Your task to perform on an android device: Open notification settings Image 0: 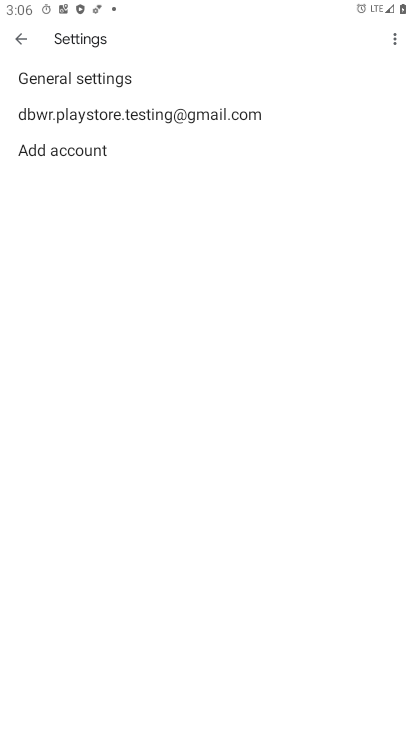
Step 0: press home button
Your task to perform on an android device: Open notification settings Image 1: 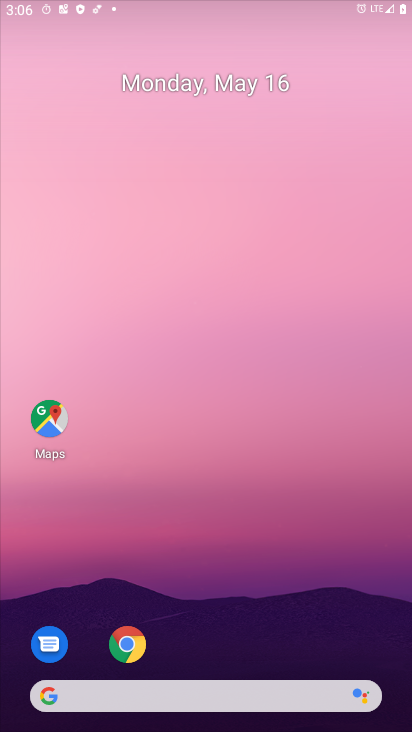
Step 1: drag from (231, 621) to (245, 139)
Your task to perform on an android device: Open notification settings Image 2: 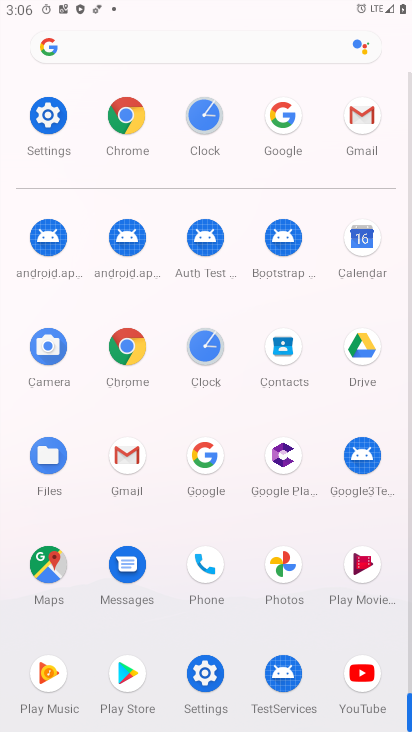
Step 2: click (62, 142)
Your task to perform on an android device: Open notification settings Image 3: 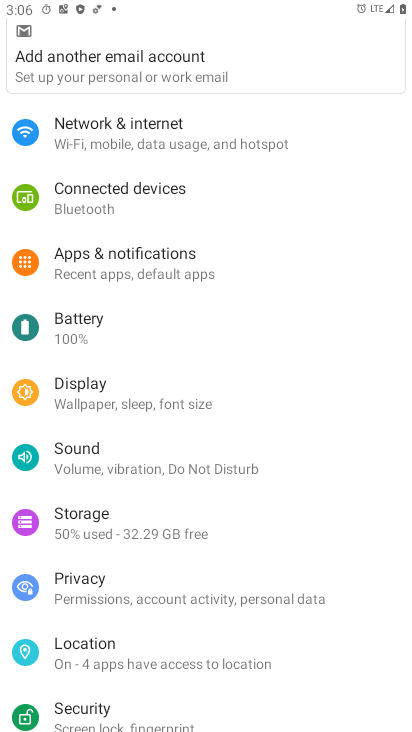
Step 3: click (204, 255)
Your task to perform on an android device: Open notification settings Image 4: 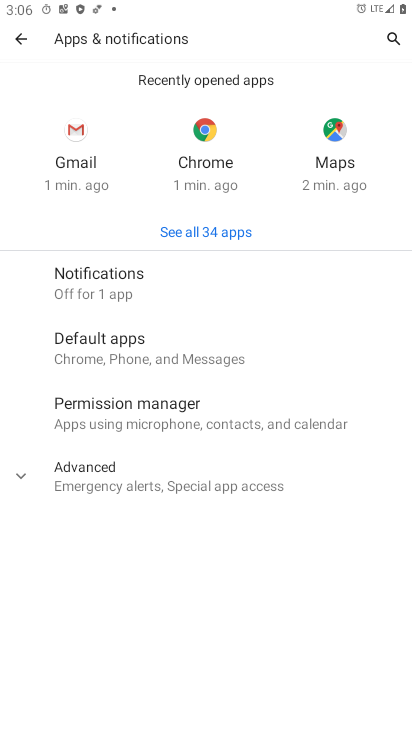
Step 4: click (188, 278)
Your task to perform on an android device: Open notification settings Image 5: 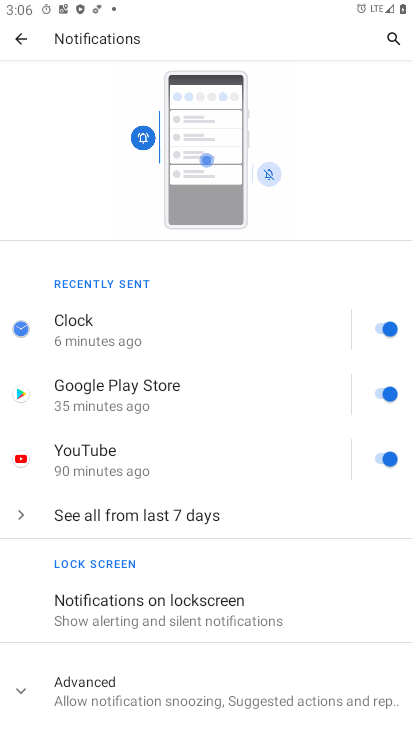
Step 5: click (204, 614)
Your task to perform on an android device: Open notification settings Image 6: 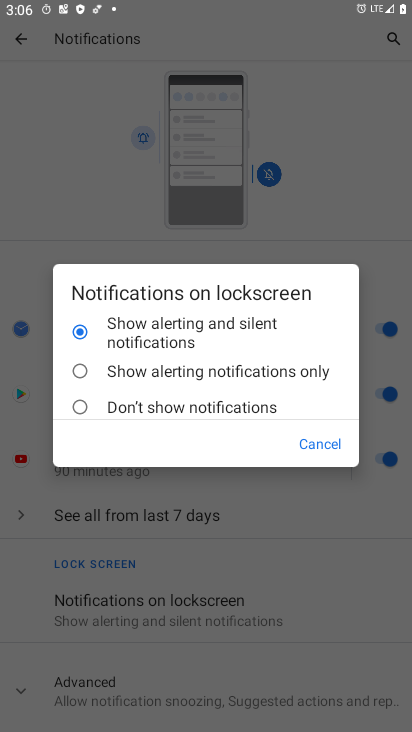
Step 6: task complete